Your task to perform on an android device: What's the weather going to be tomorrow? Image 0: 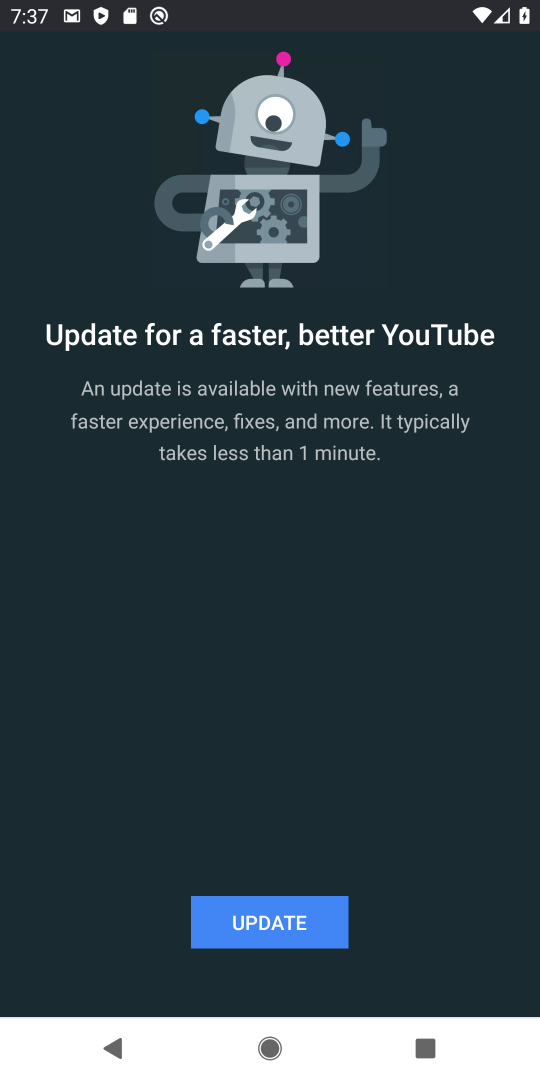
Step 0: press back button
Your task to perform on an android device: What's the weather going to be tomorrow? Image 1: 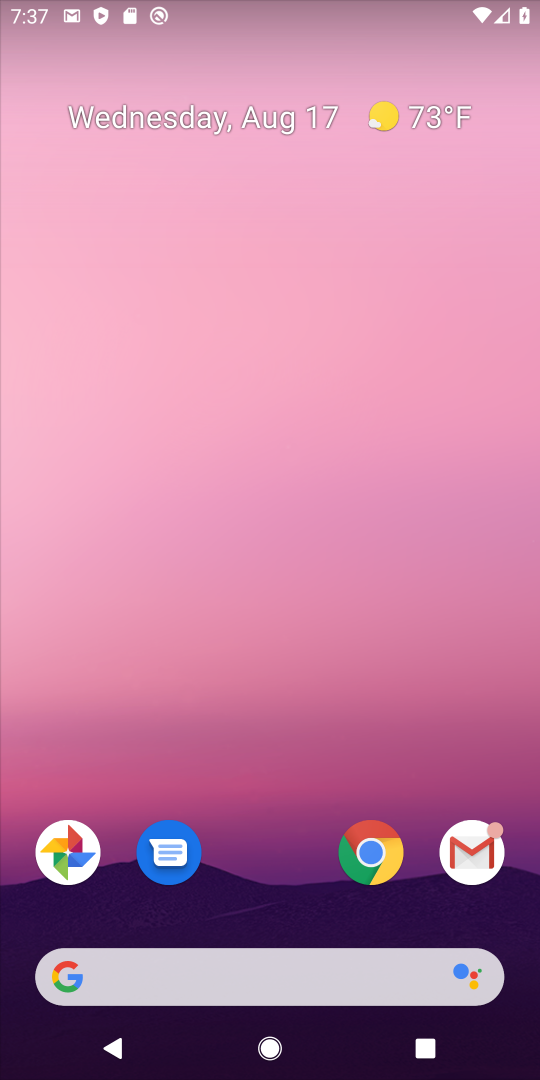
Step 1: press home button
Your task to perform on an android device: What's the weather going to be tomorrow? Image 2: 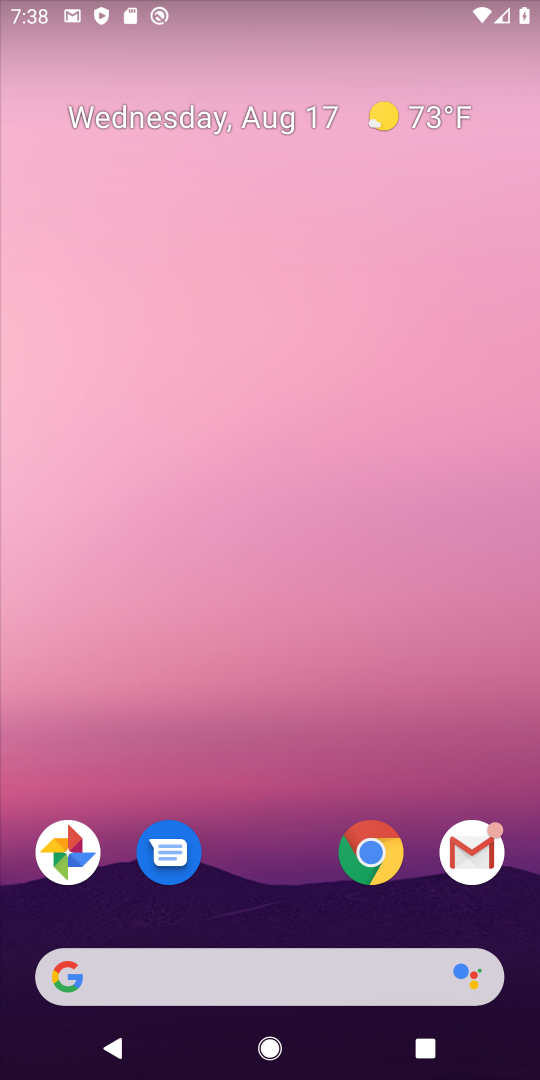
Step 2: click (65, 960)
Your task to perform on an android device: What's the weather going to be tomorrow? Image 3: 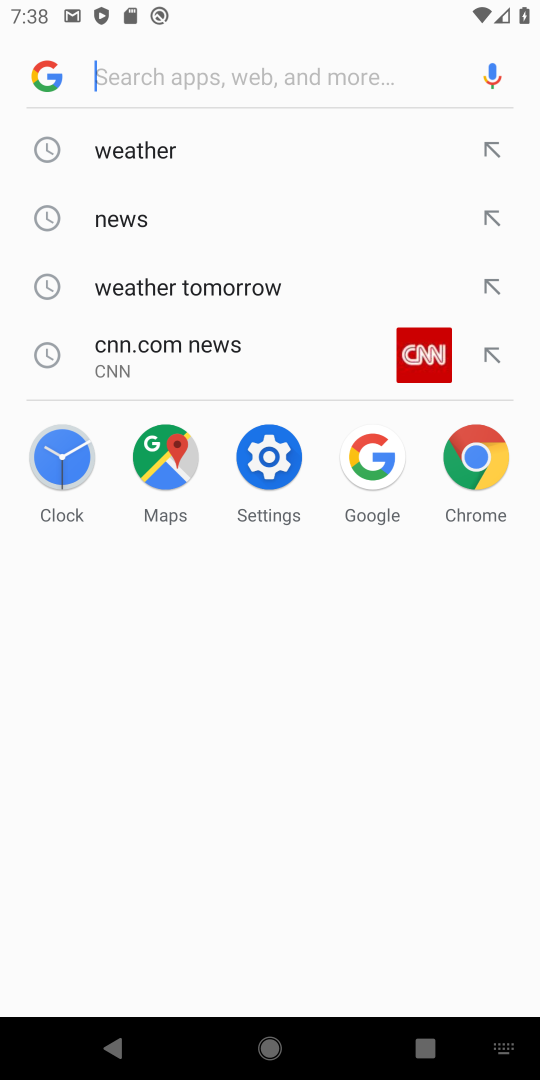
Step 3: click (141, 149)
Your task to perform on an android device: What's the weather going to be tomorrow? Image 4: 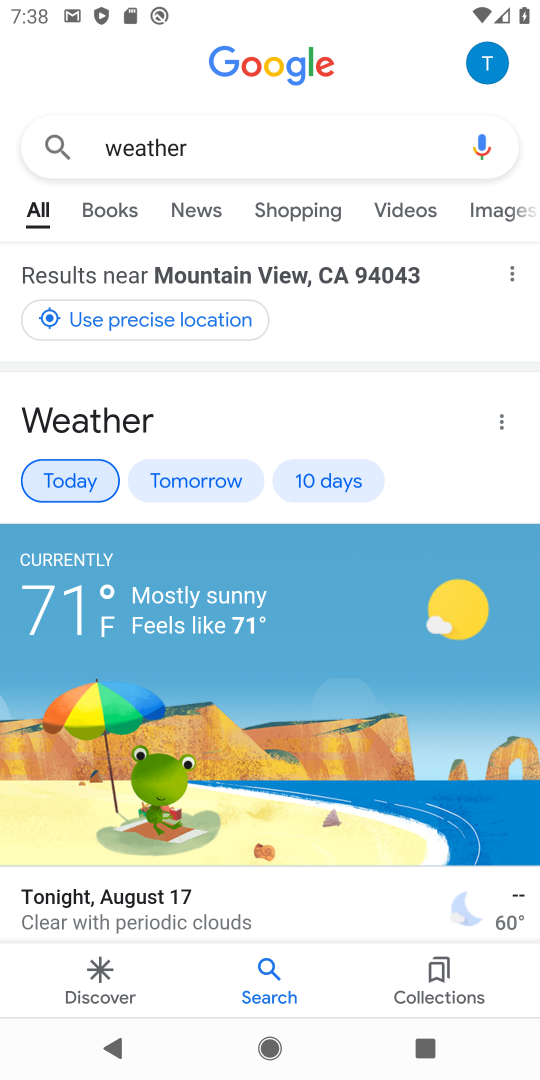
Step 4: click (205, 471)
Your task to perform on an android device: What's the weather going to be tomorrow? Image 5: 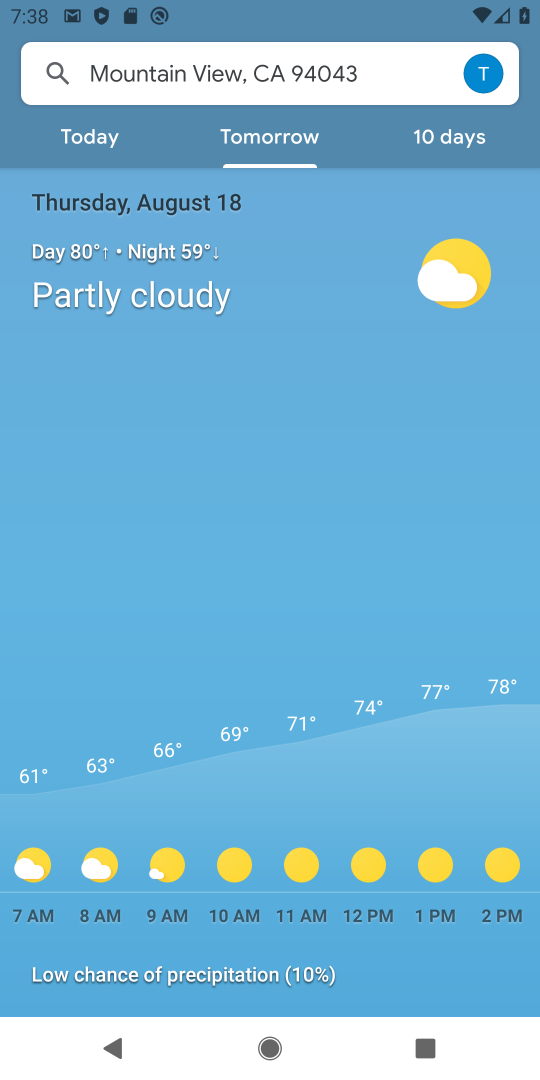
Step 5: task complete